Your task to perform on an android device: uninstall "Google Docs" Image 0: 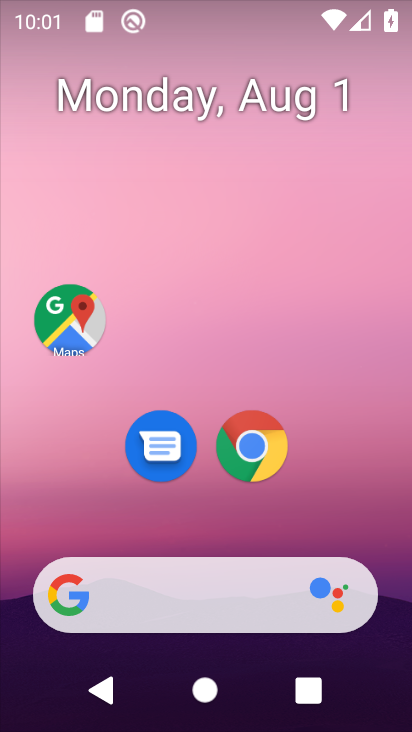
Step 0: drag from (209, 536) to (255, 179)
Your task to perform on an android device: uninstall "Google Docs" Image 1: 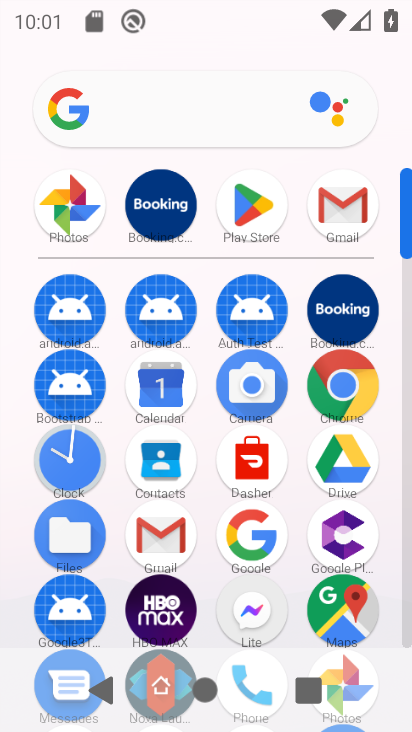
Step 1: click (260, 198)
Your task to perform on an android device: uninstall "Google Docs" Image 2: 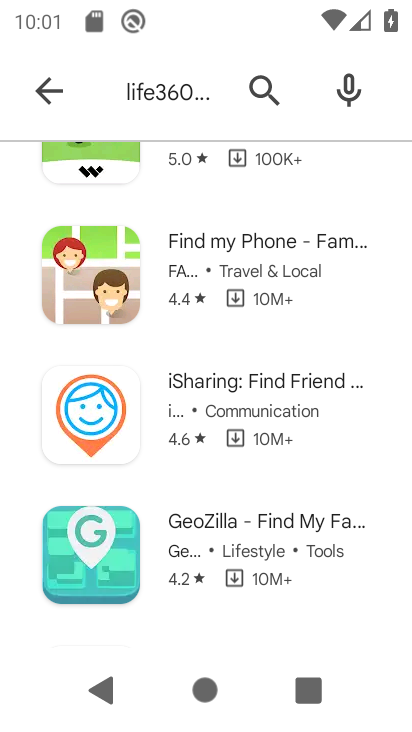
Step 2: click (251, 87)
Your task to perform on an android device: uninstall "Google Docs" Image 3: 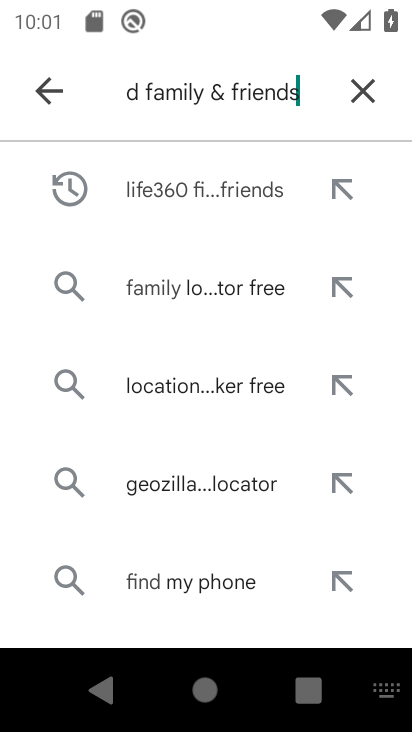
Step 3: click (362, 84)
Your task to perform on an android device: uninstall "Google Docs" Image 4: 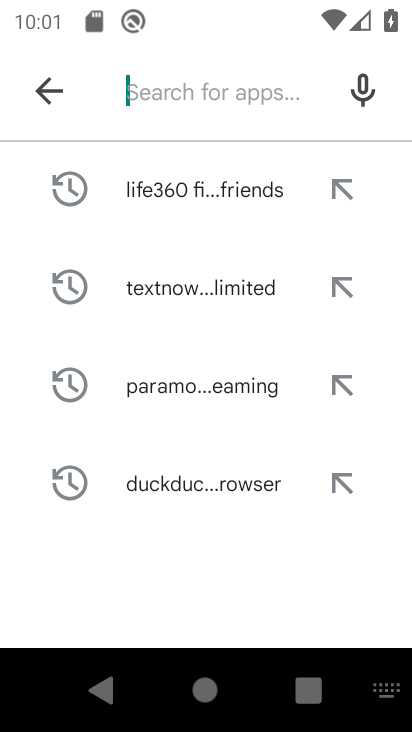
Step 4: type "Google Docs"
Your task to perform on an android device: uninstall "Google Docs" Image 5: 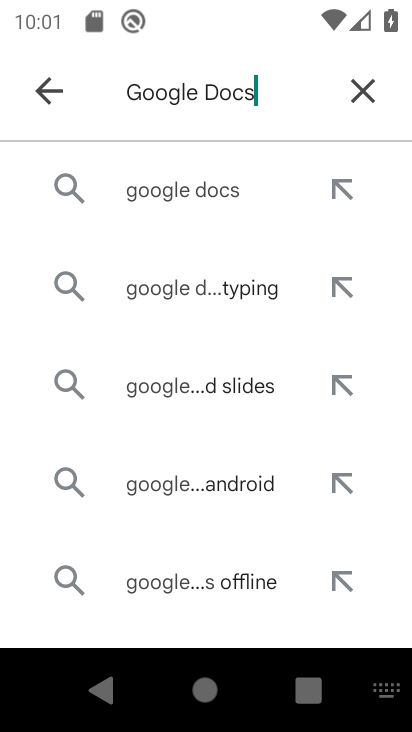
Step 5: type ""
Your task to perform on an android device: uninstall "Google Docs" Image 6: 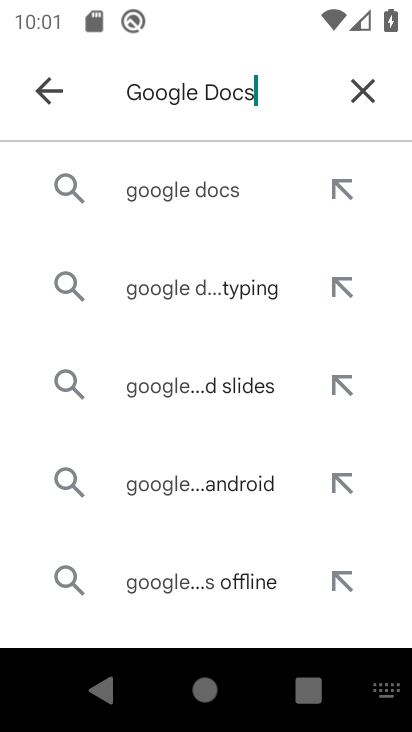
Step 6: click (171, 203)
Your task to perform on an android device: uninstall "Google Docs" Image 7: 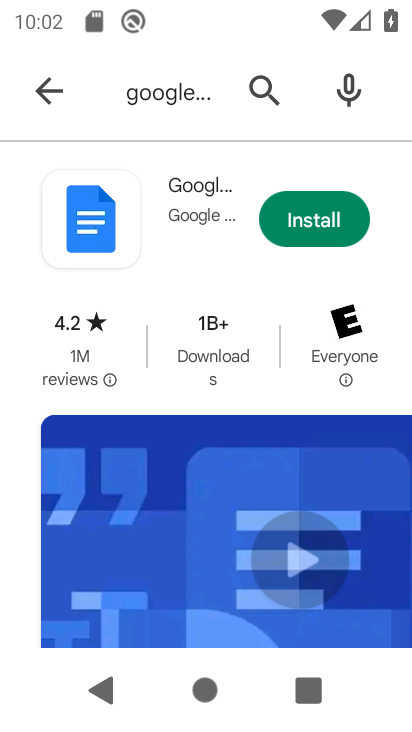
Step 7: task complete